Your task to perform on an android device: change the clock display to show seconds Image 0: 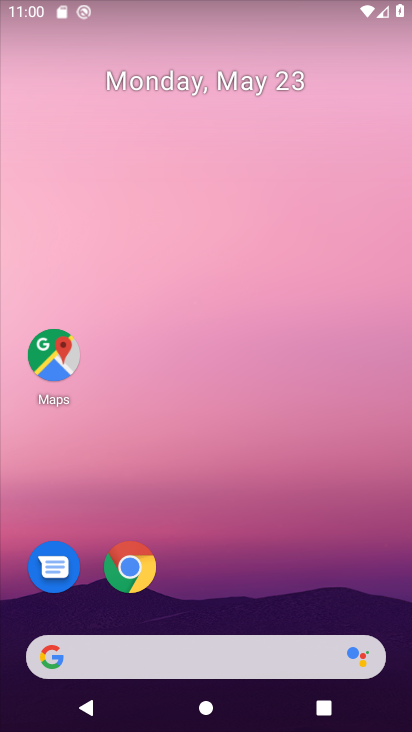
Step 0: drag from (271, 593) to (303, 197)
Your task to perform on an android device: change the clock display to show seconds Image 1: 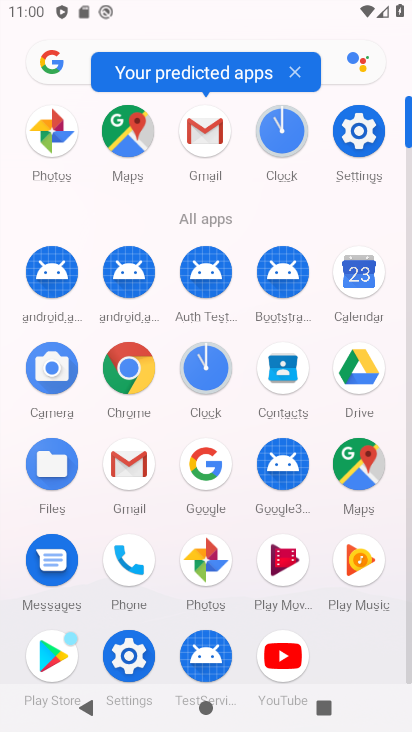
Step 1: click (219, 377)
Your task to perform on an android device: change the clock display to show seconds Image 2: 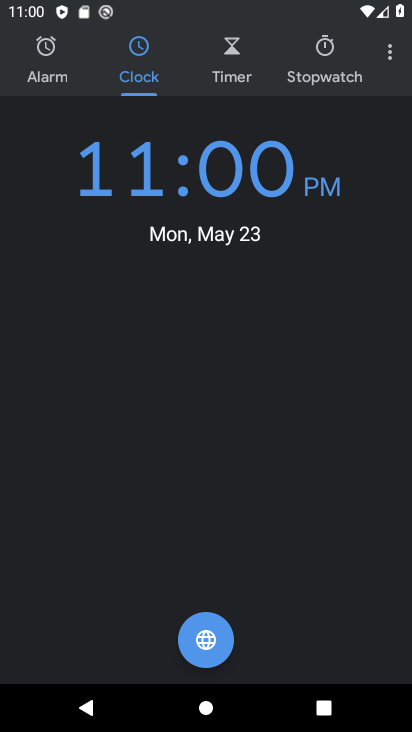
Step 2: click (388, 62)
Your task to perform on an android device: change the clock display to show seconds Image 3: 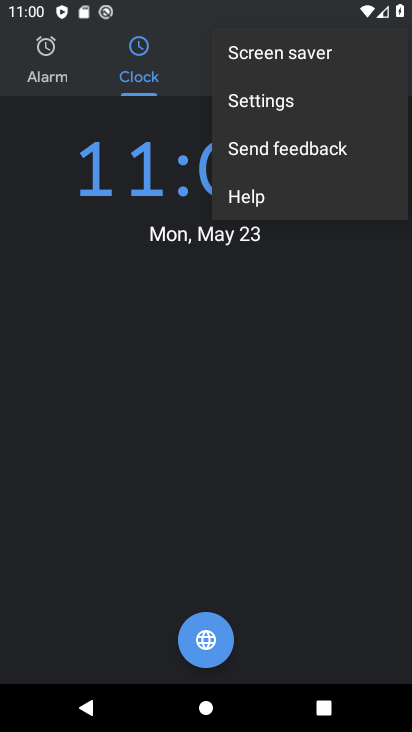
Step 3: click (307, 103)
Your task to perform on an android device: change the clock display to show seconds Image 4: 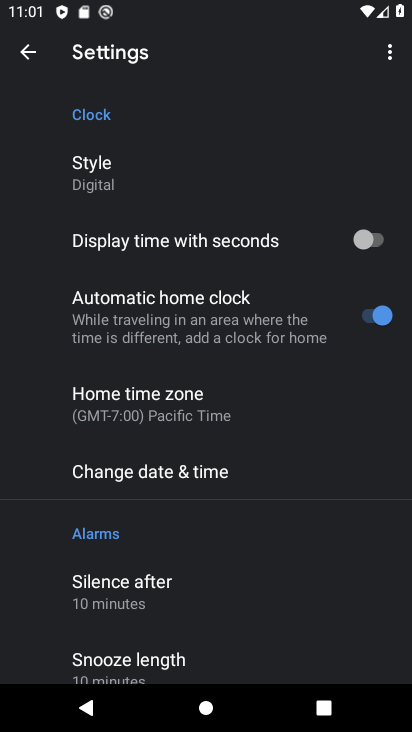
Step 4: click (232, 475)
Your task to perform on an android device: change the clock display to show seconds Image 5: 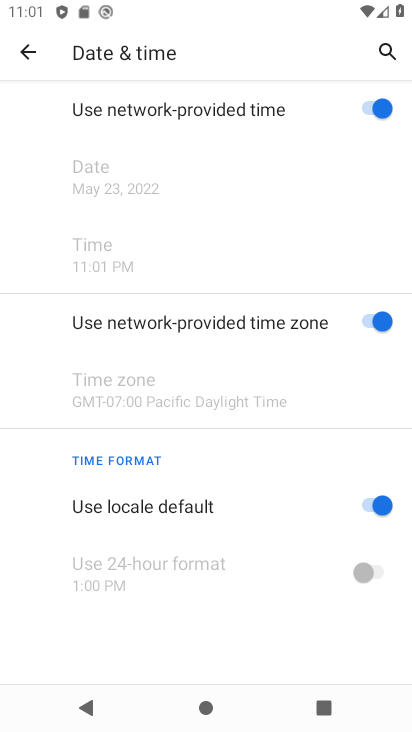
Step 5: drag from (220, 603) to (232, 254)
Your task to perform on an android device: change the clock display to show seconds Image 6: 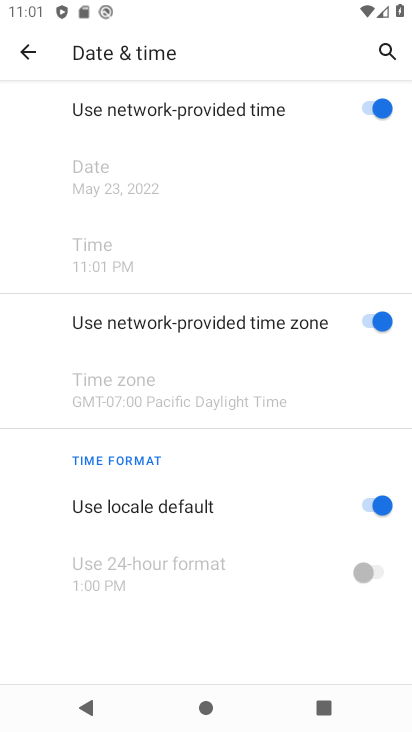
Step 6: click (34, 56)
Your task to perform on an android device: change the clock display to show seconds Image 7: 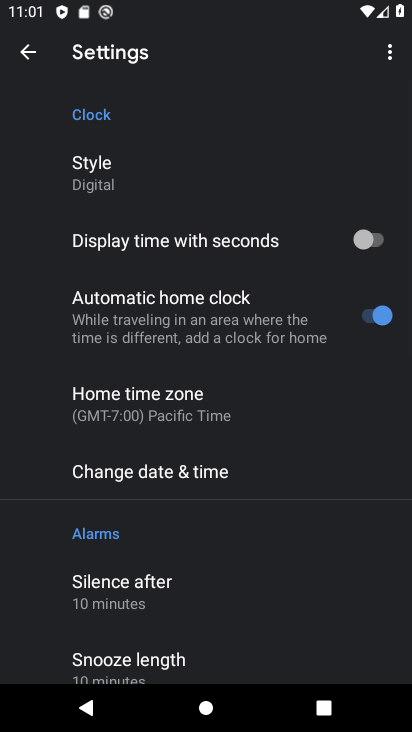
Step 7: click (382, 248)
Your task to perform on an android device: change the clock display to show seconds Image 8: 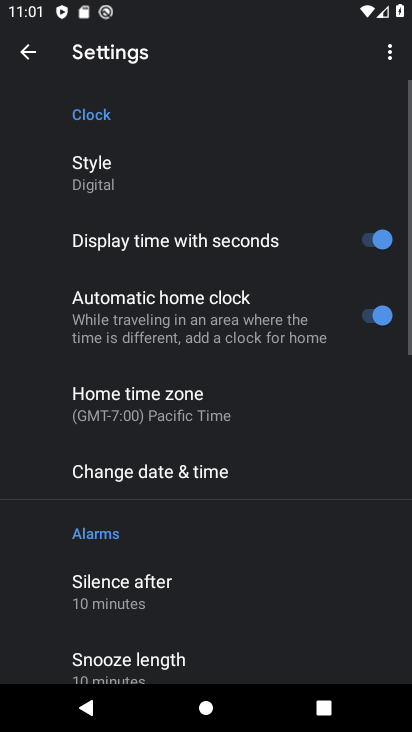
Step 8: task complete